Your task to perform on an android device: Search for pizza restaurants on Maps Image 0: 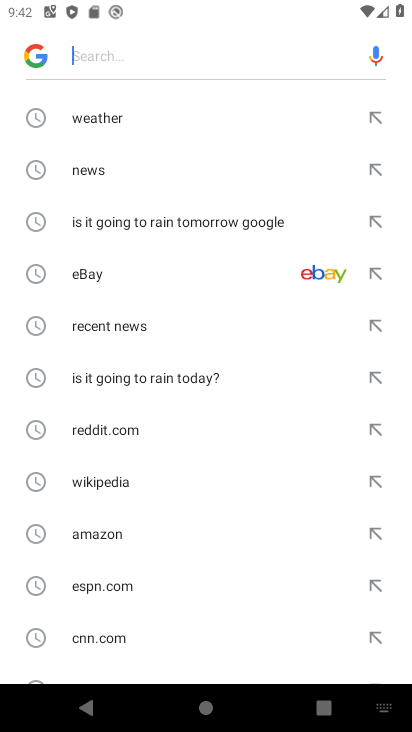
Step 0: press home button
Your task to perform on an android device: Search for pizza restaurants on Maps Image 1: 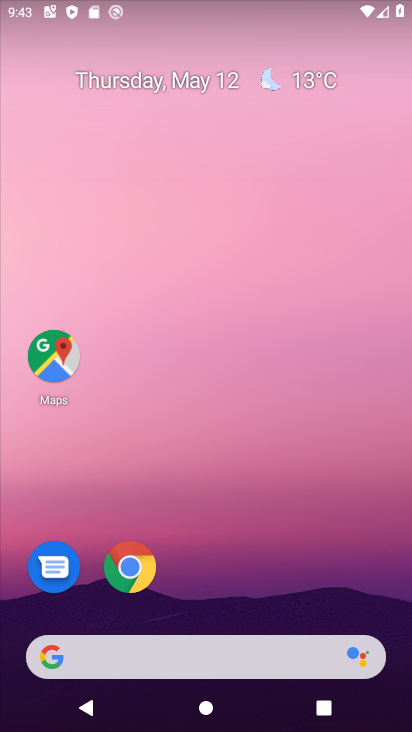
Step 1: click (38, 369)
Your task to perform on an android device: Search for pizza restaurants on Maps Image 2: 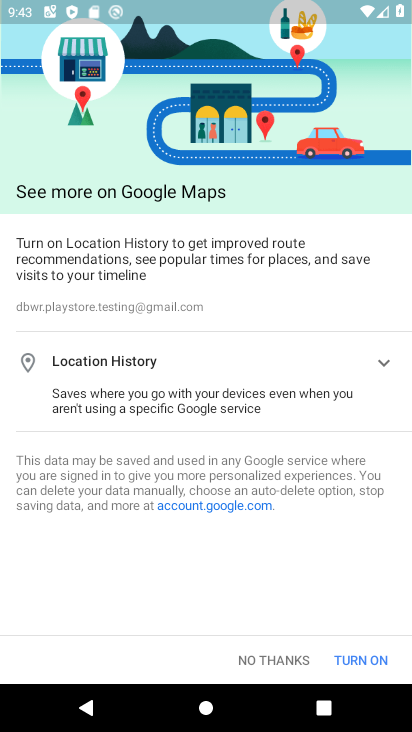
Step 2: press back button
Your task to perform on an android device: Search for pizza restaurants on Maps Image 3: 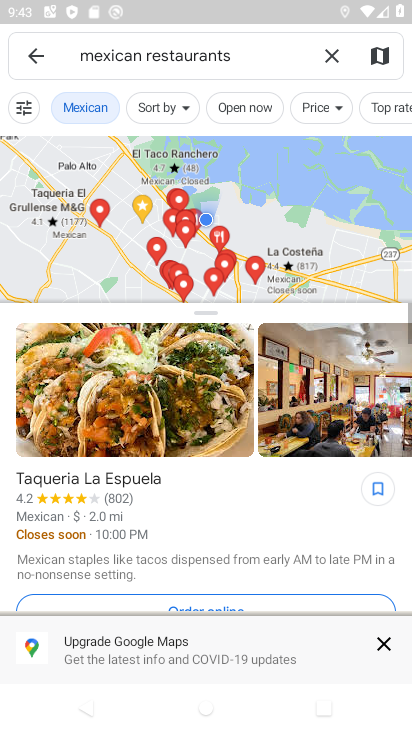
Step 3: click (335, 54)
Your task to perform on an android device: Search for pizza restaurants on Maps Image 4: 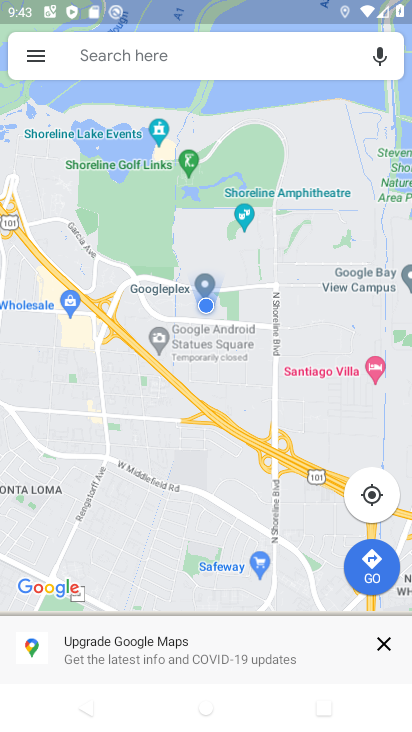
Step 4: click (197, 60)
Your task to perform on an android device: Search for pizza restaurants on Maps Image 5: 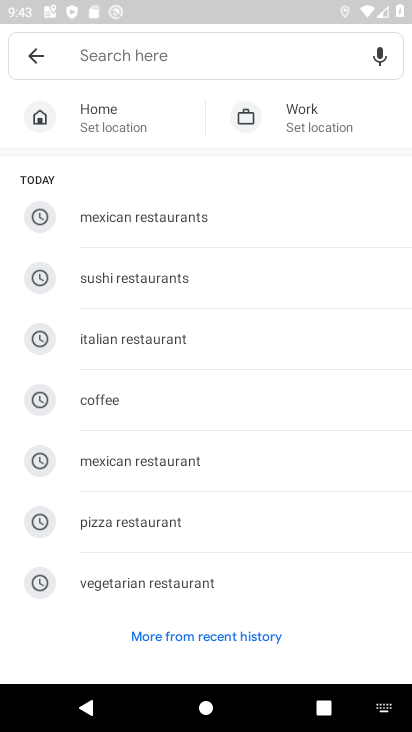
Step 5: click (159, 530)
Your task to perform on an android device: Search for pizza restaurants on Maps Image 6: 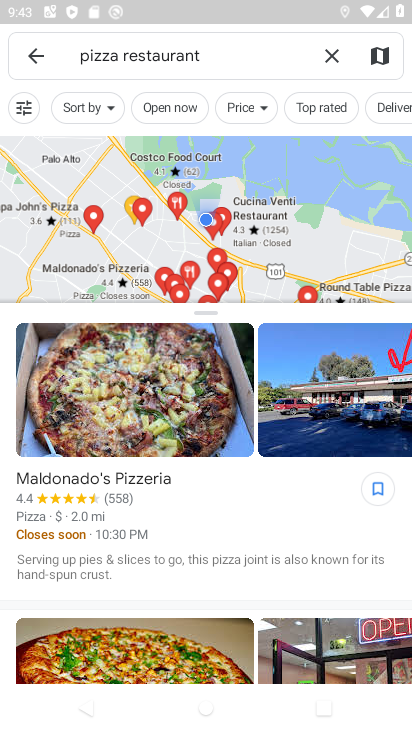
Step 6: task complete